Your task to perform on an android device: open app "The Home Depot" Image 0: 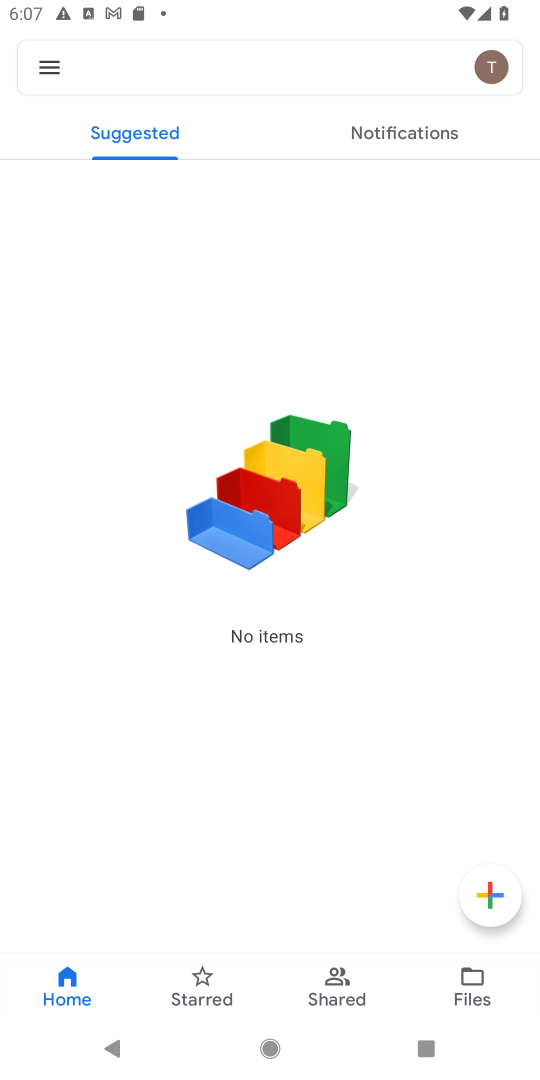
Step 0: press home button
Your task to perform on an android device: open app "The Home Depot" Image 1: 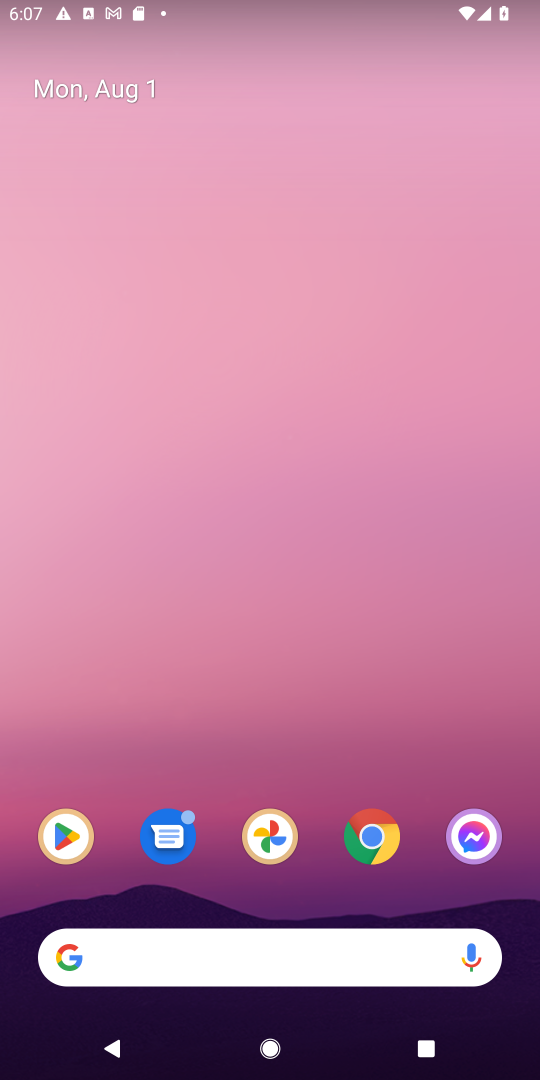
Step 1: press home button
Your task to perform on an android device: open app "The Home Depot" Image 2: 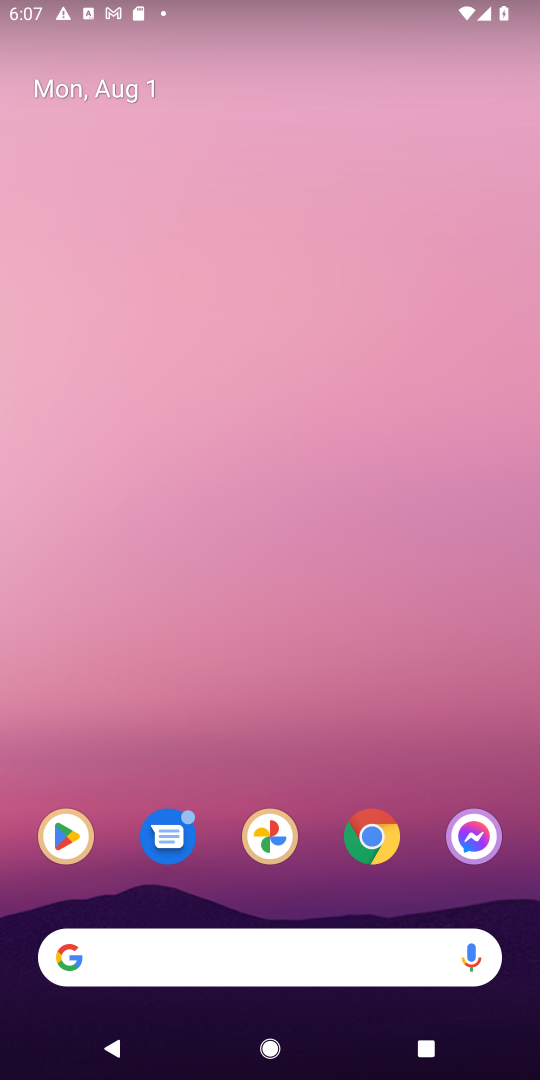
Step 2: click (66, 831)
Your task to perform on an android device: open app "The Home Depot" Image 3: 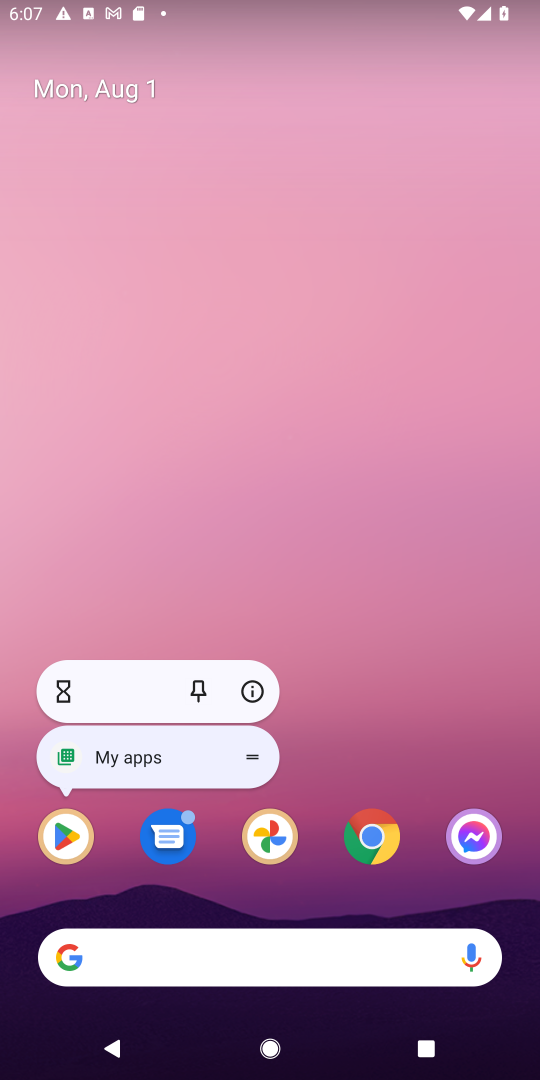
Step 3: click (66, 830)
Your task to perform on an android device: open app "The Home Depot" Image 4: 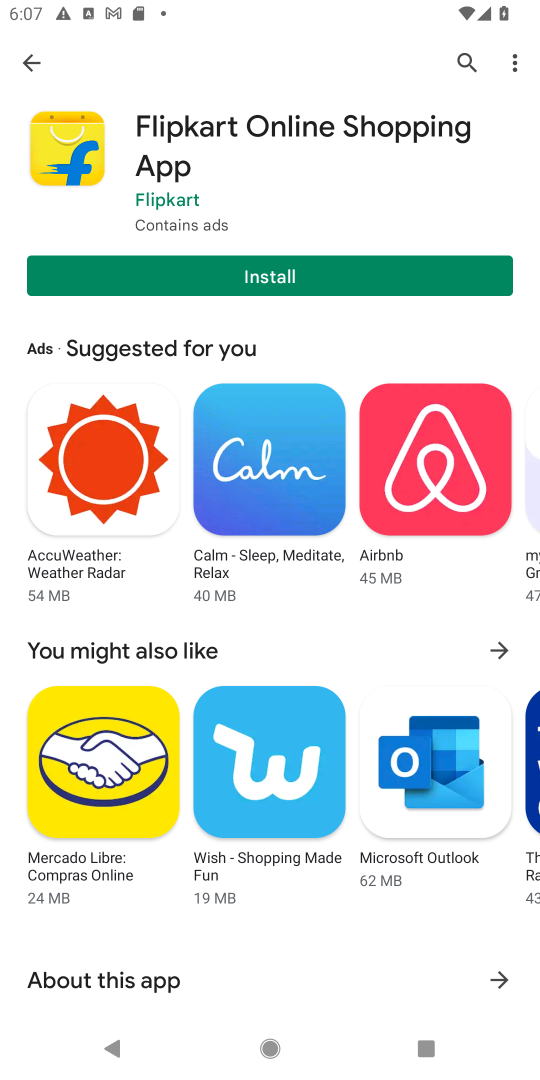
Step 4: click (467, 65)
Your task to perform on an android device: open app "The Home Depot" Image 5: 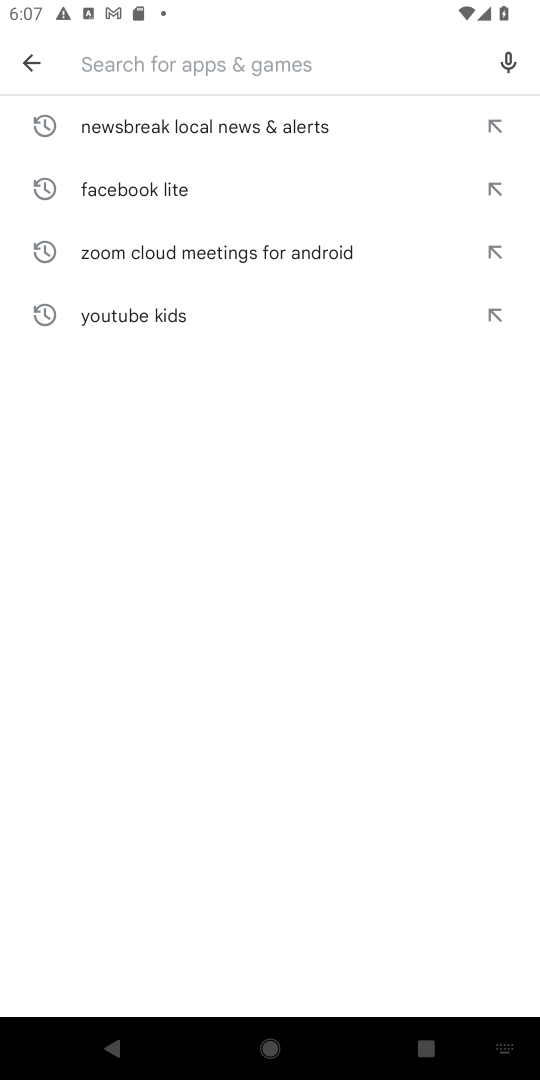
Step 5: type "The Home Depot"
Your task to perform on an android device: open app "The Home Depot" Image 6: 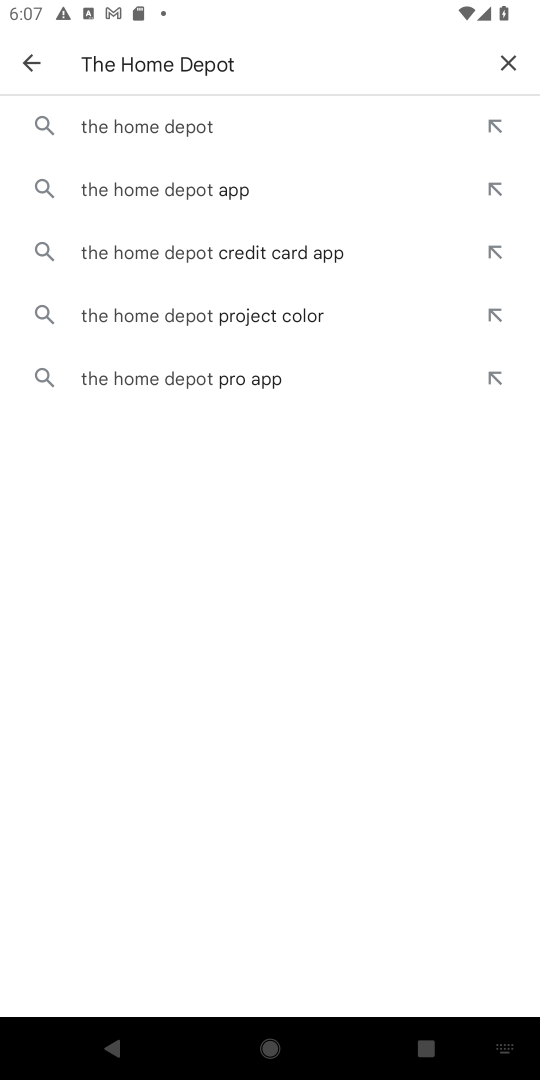
Step 6: click (190, 127)
Your task to perform on an android device: open app "The Home Depot" Image 7: 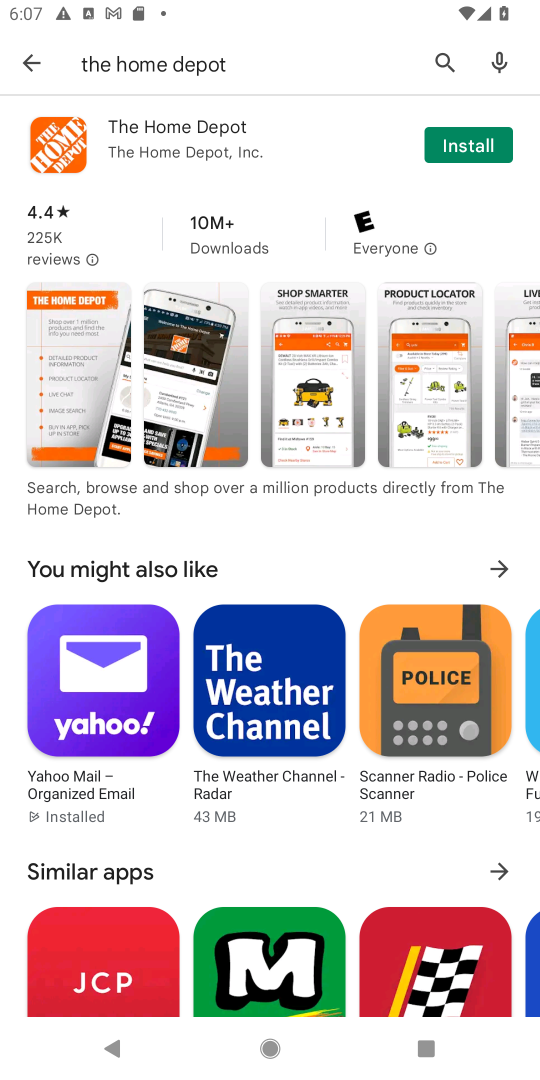
Step 7: task complete